Your task to perform on an android device: Go to Reddit Image 0: 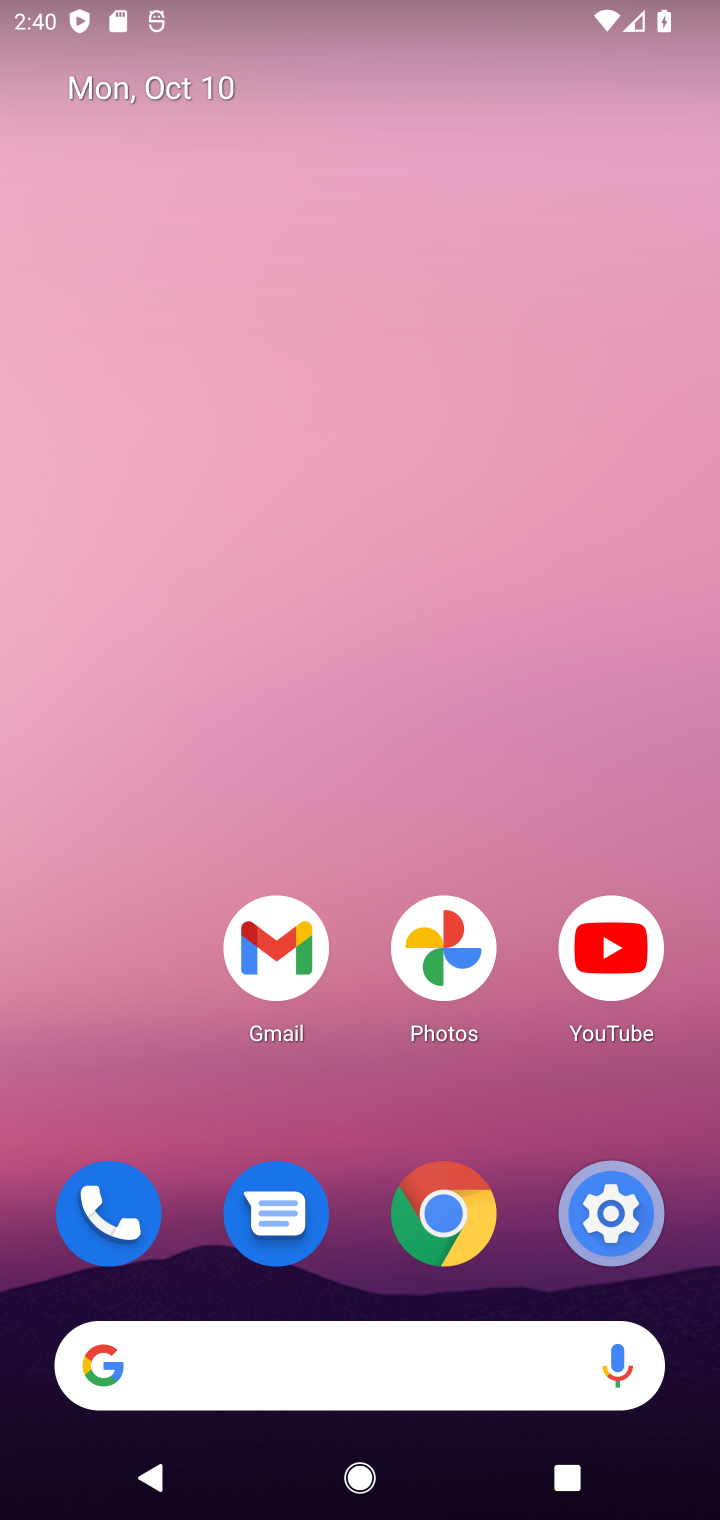
Step 0: drag from (355, 1128) to (333, 275)
Your task to perform on an android device: Go to Reddit Image 1: 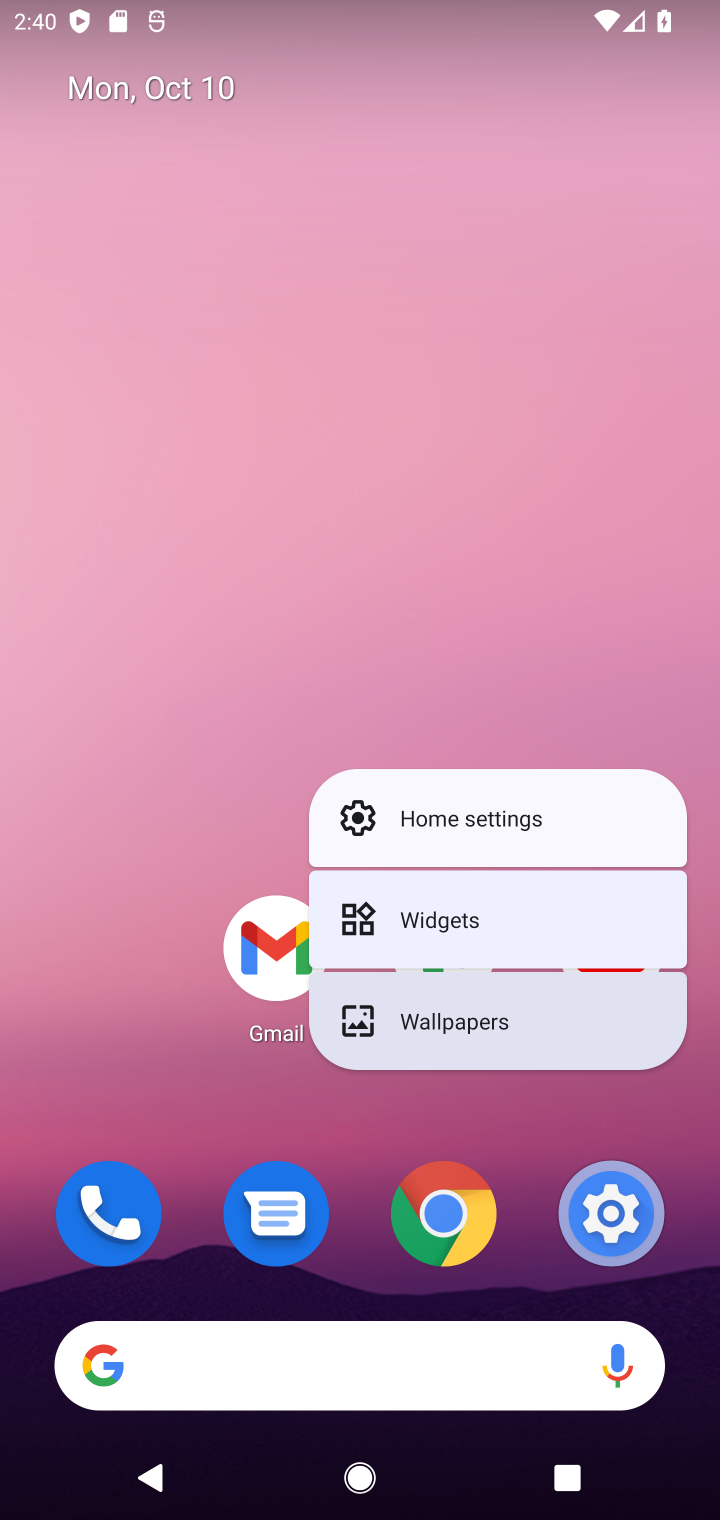
Step 1: drag from (168, 1092) to (299, 224)
Your task to perform on an android device: Go to Reddit Image 2: 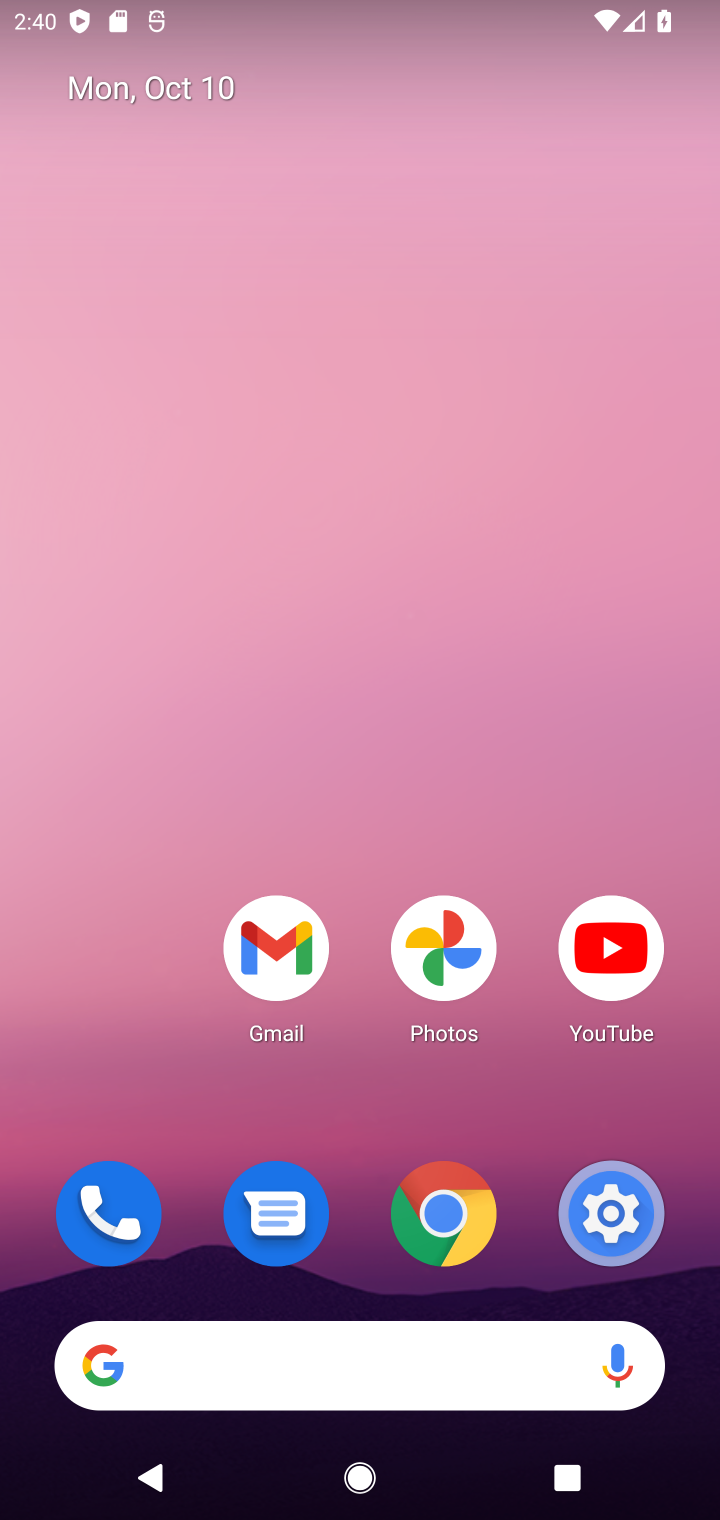
Step 2: click (358, 1149)
Your task to perform on an android device: Go to Reddit Image 3: 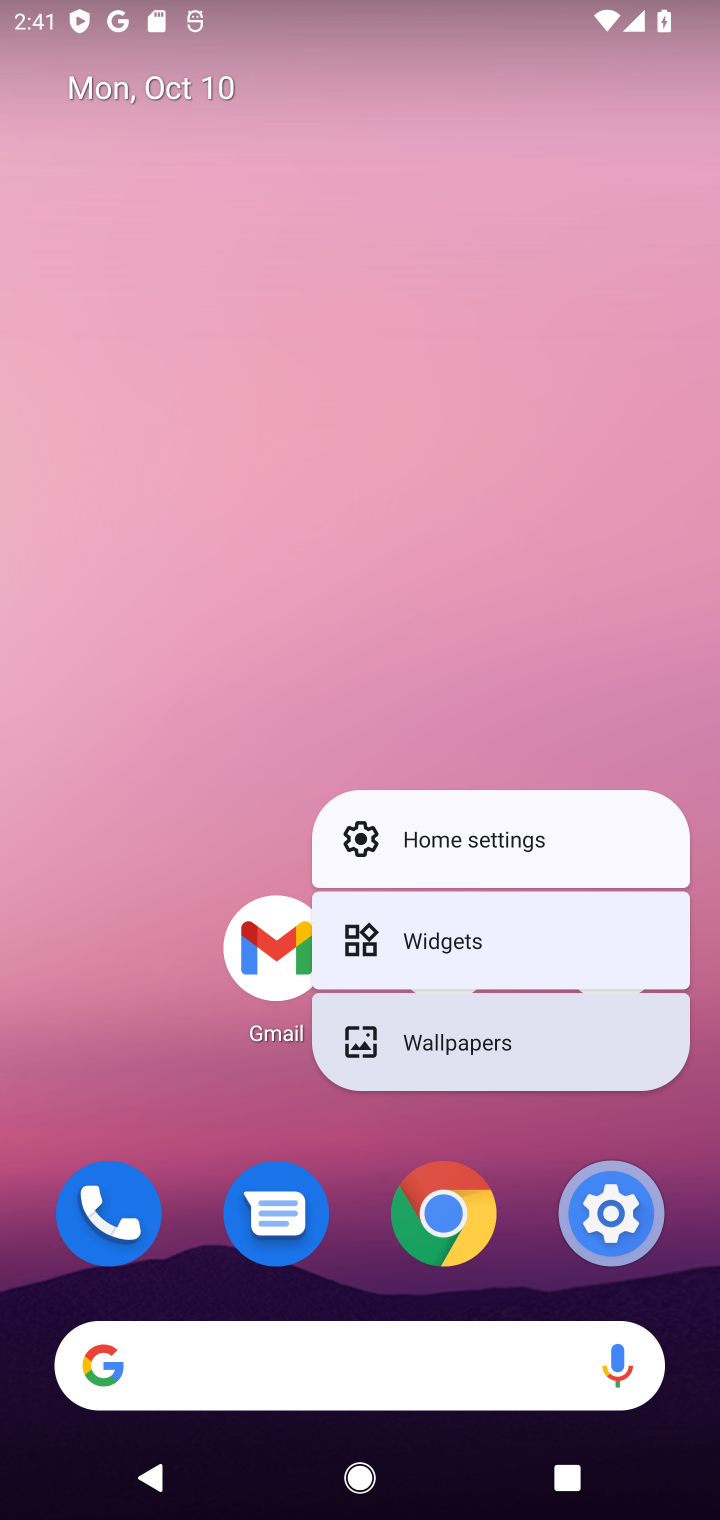
Step 3: drag from (208, 1063) to (392, 121)
Your task to perform on an android device: Go to Reddit Image 4: 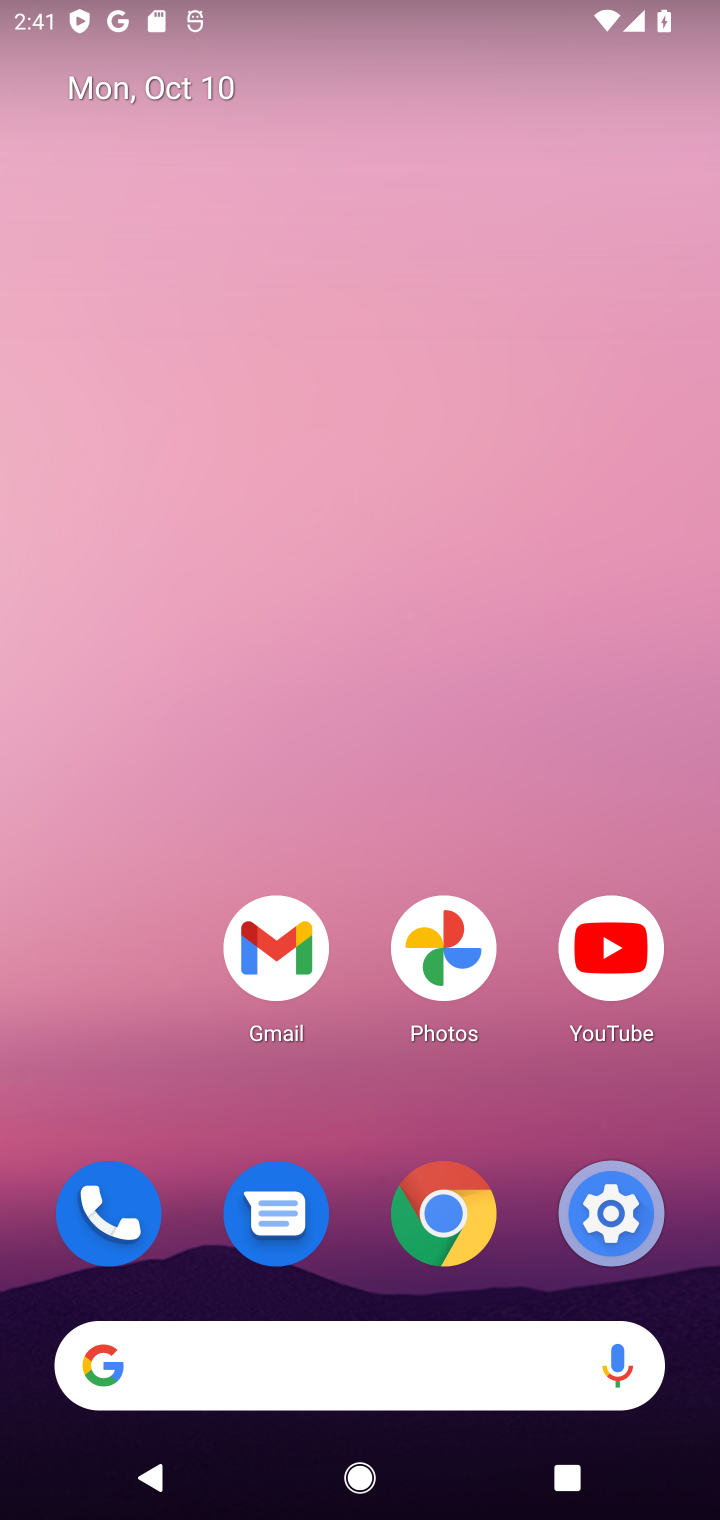
Step 4: drag from (540, 912) to (595, 70)
Your task to perform on an android device: Go to Reddit Image 5: 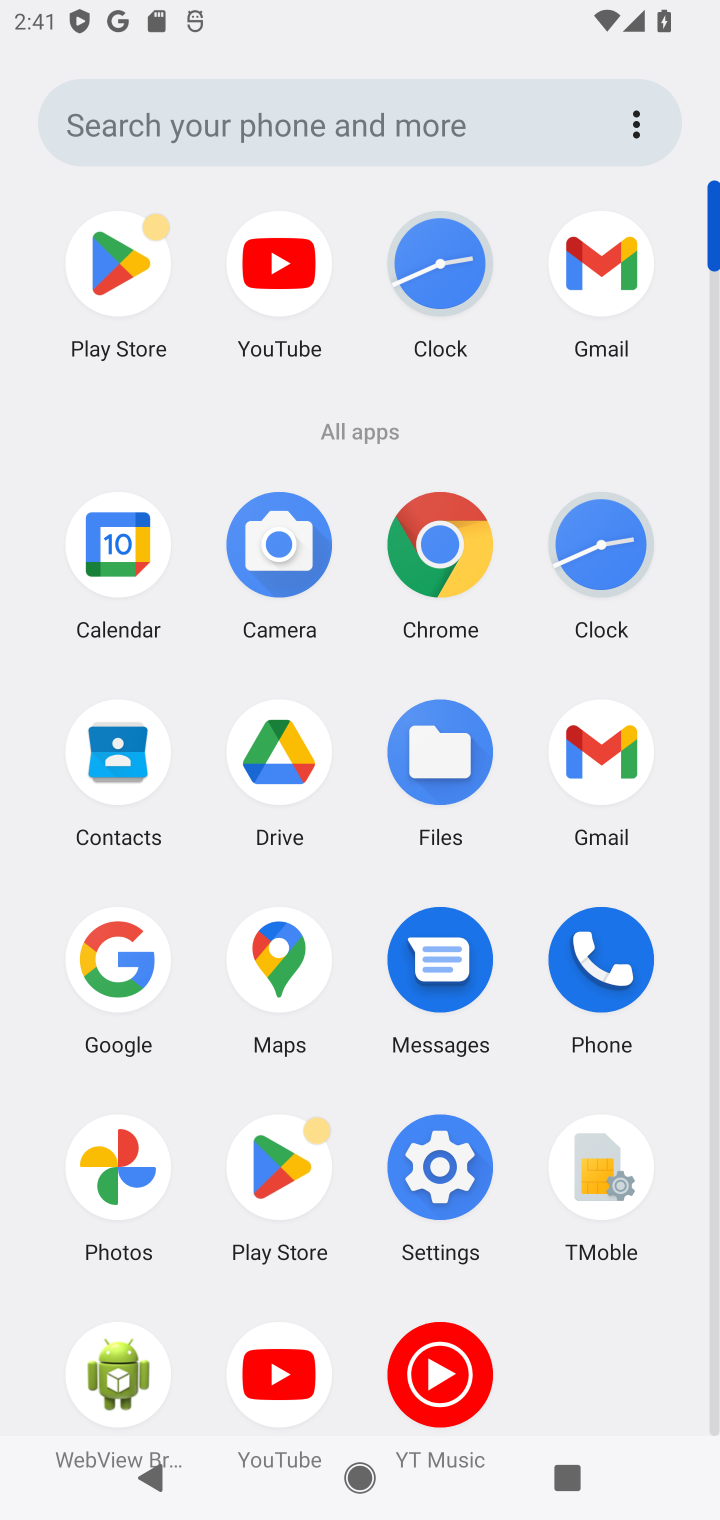
Step 5: click (451, 534)
Your task to perform on an android device: Go to Reddit Image 6: 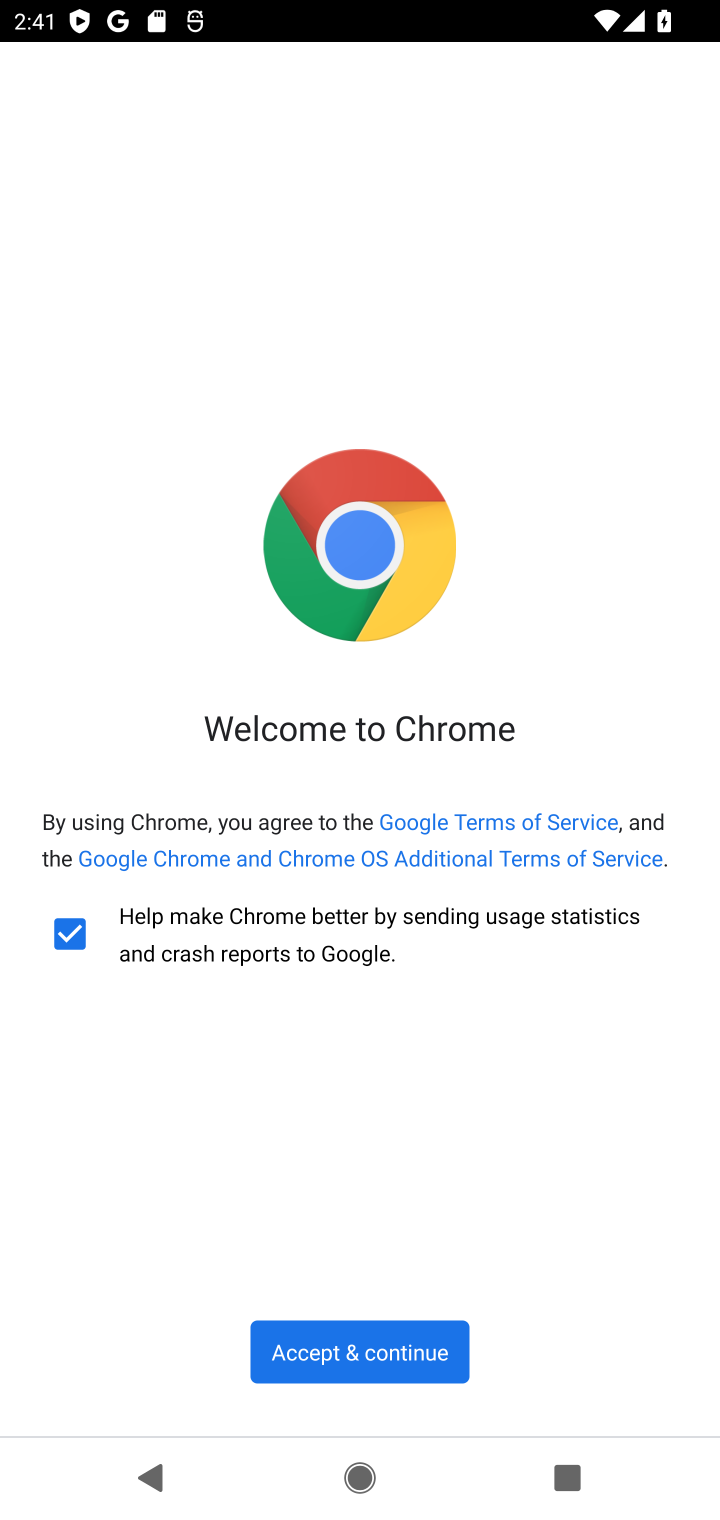
Step 6: click (442, 1346)
Your task to perform on an android device: Go to Reddit Image 7: 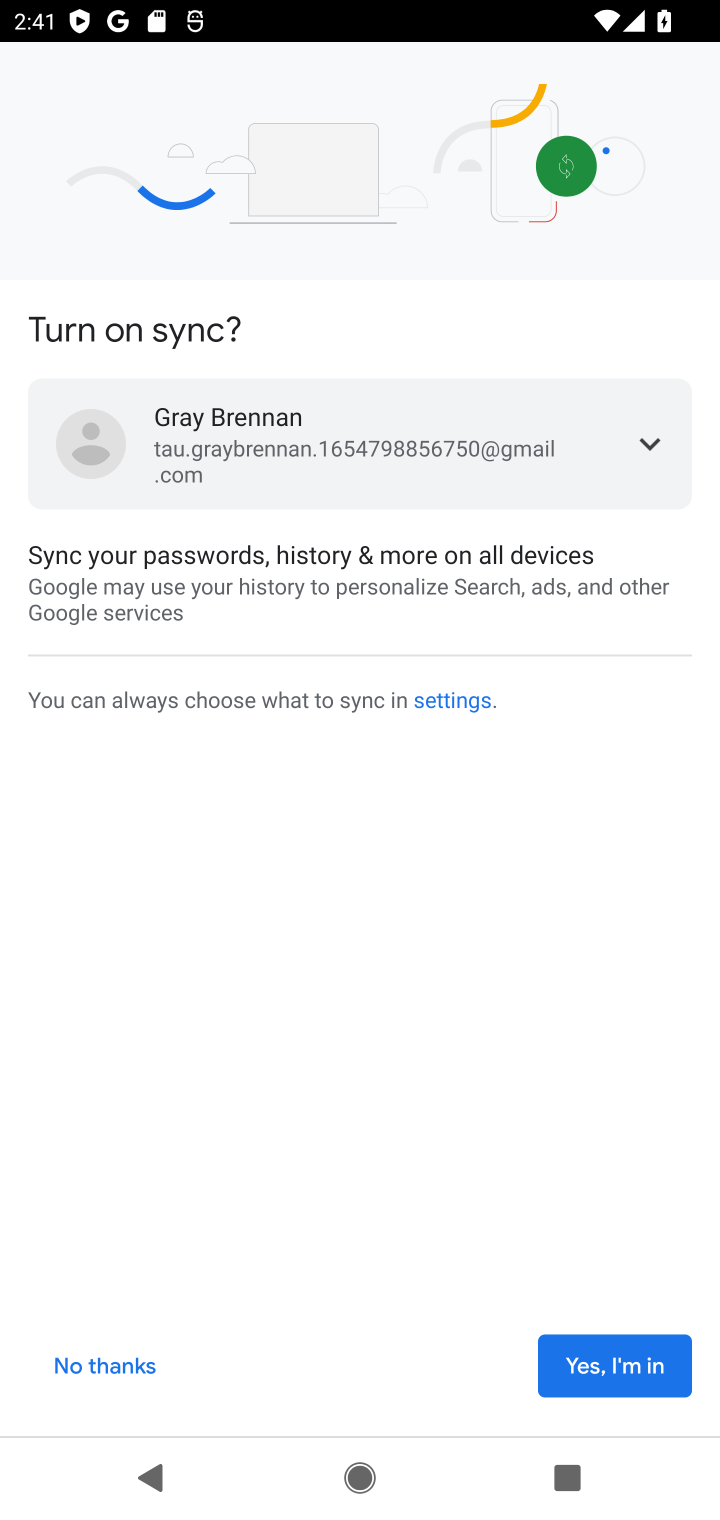
Step 7: click (570, 1360)
Your task to perform on an android device: Go to Reddit Image 8: 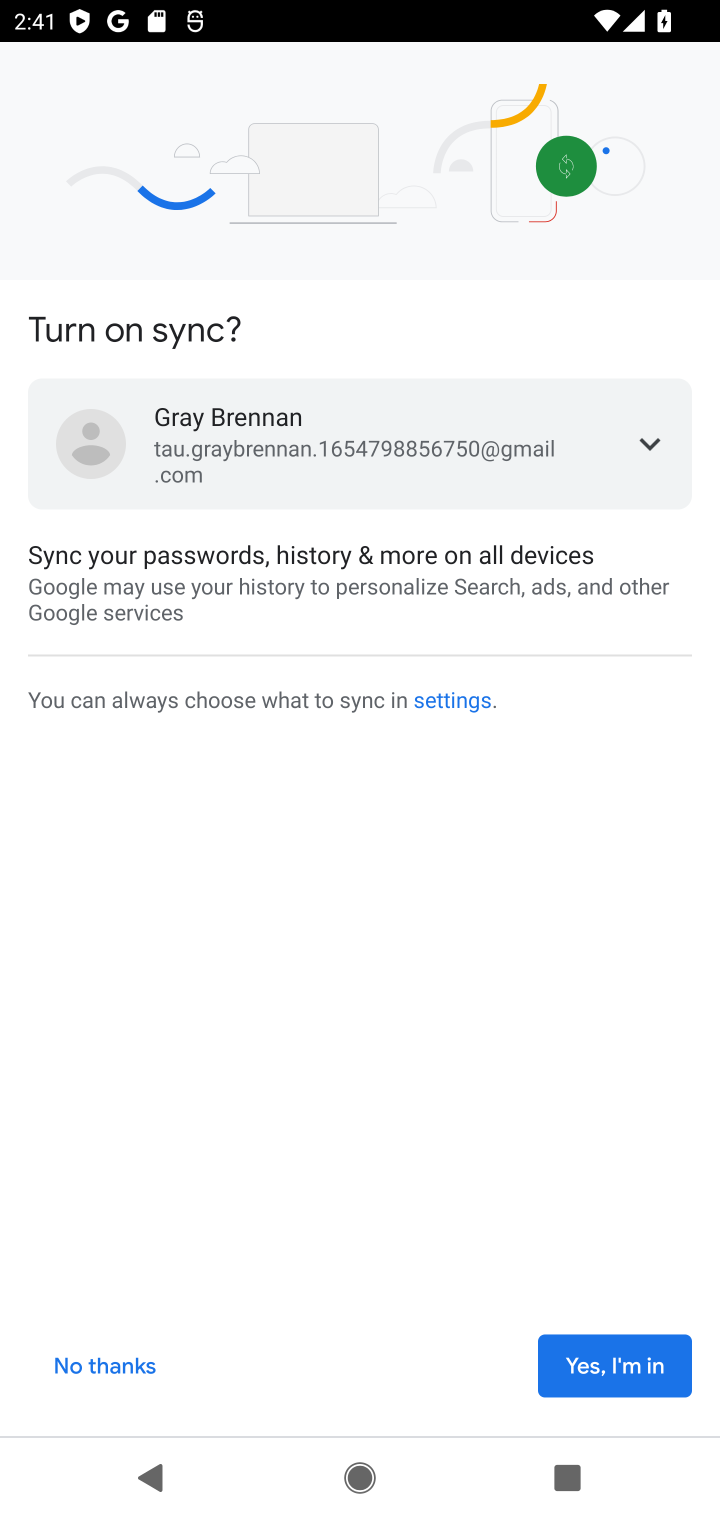
Step 8: click (570, 1360)
Your task to perform on an android device: Go to Reddit Image 9: 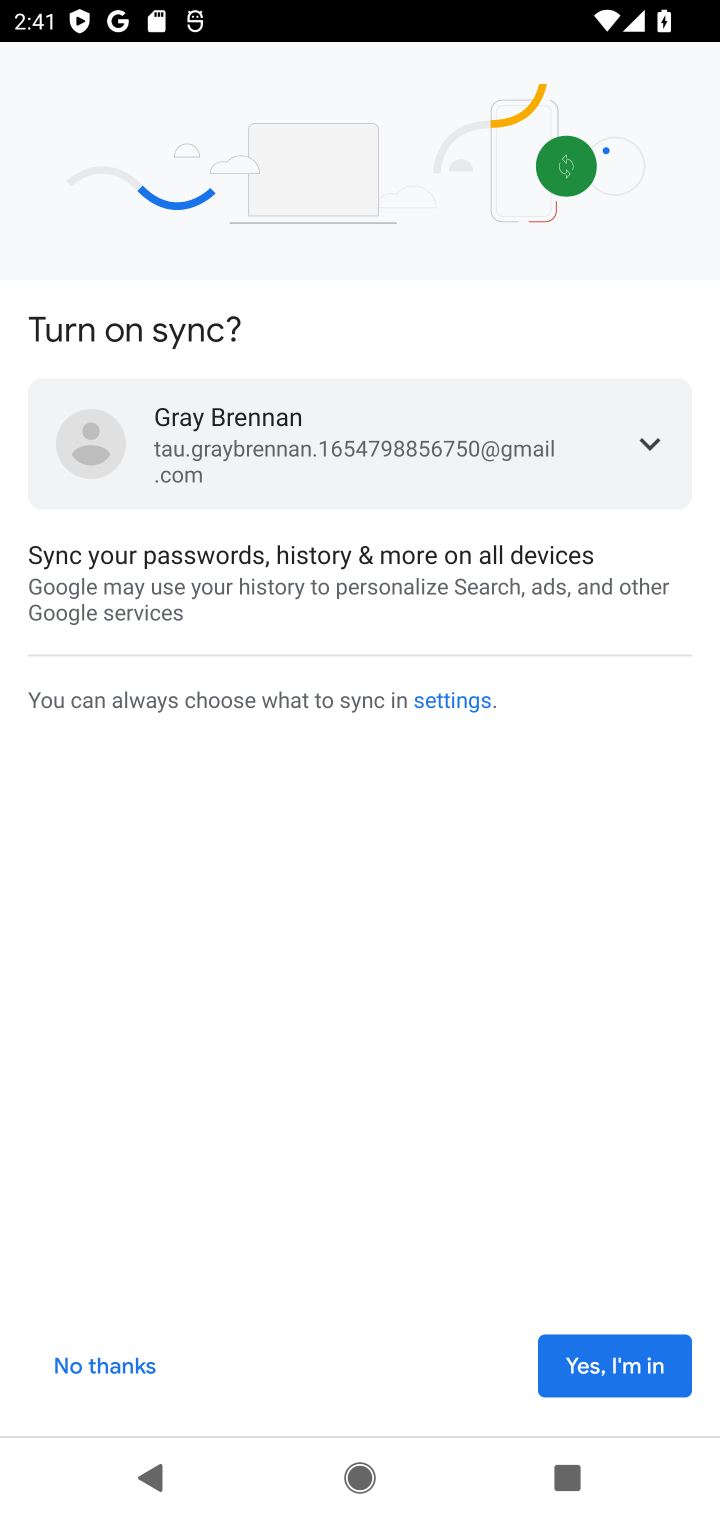
Step 9: click (570, 1360)
Your task to perform on an android device: Go to Reddit Image 10: 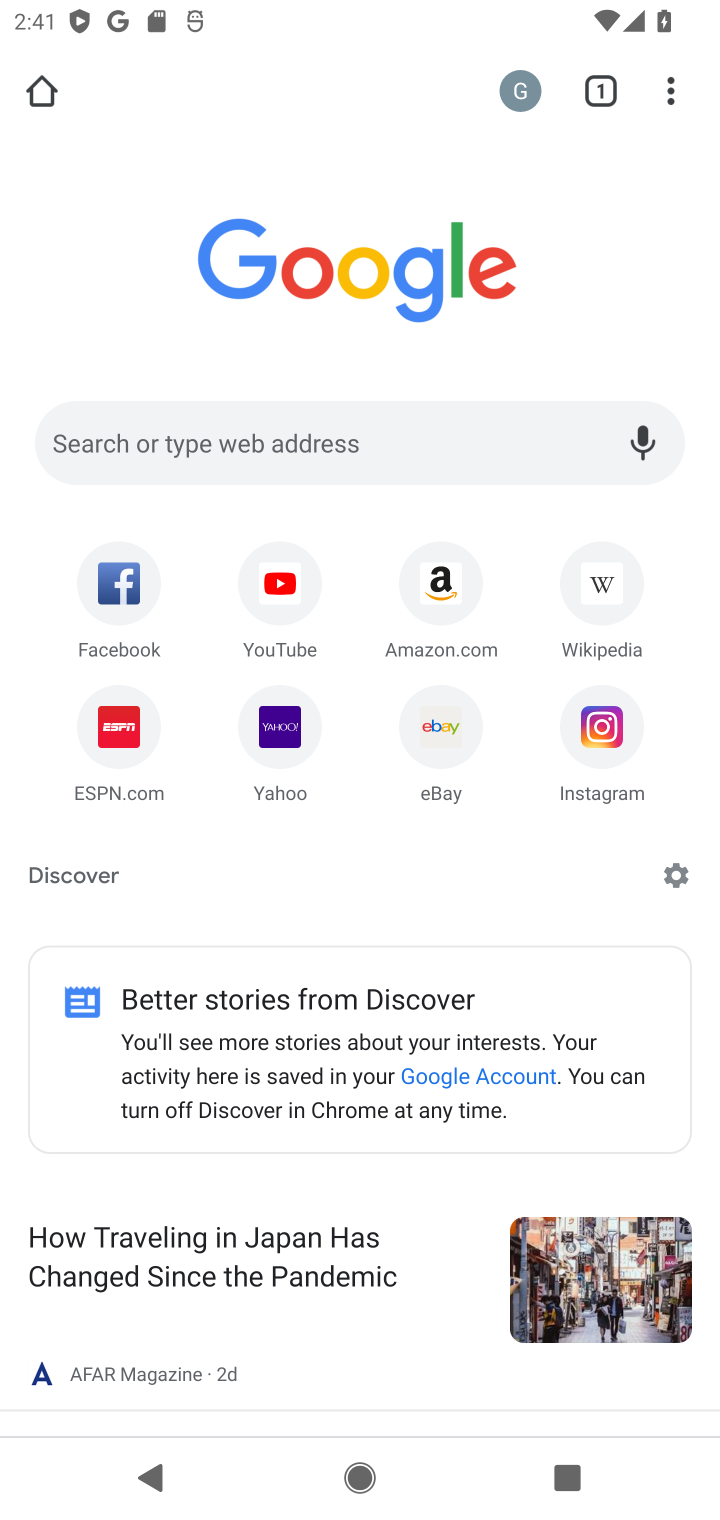
Step 10: click (332, 445)
Your task to perform on an android device: Go to Reddit Image 11: 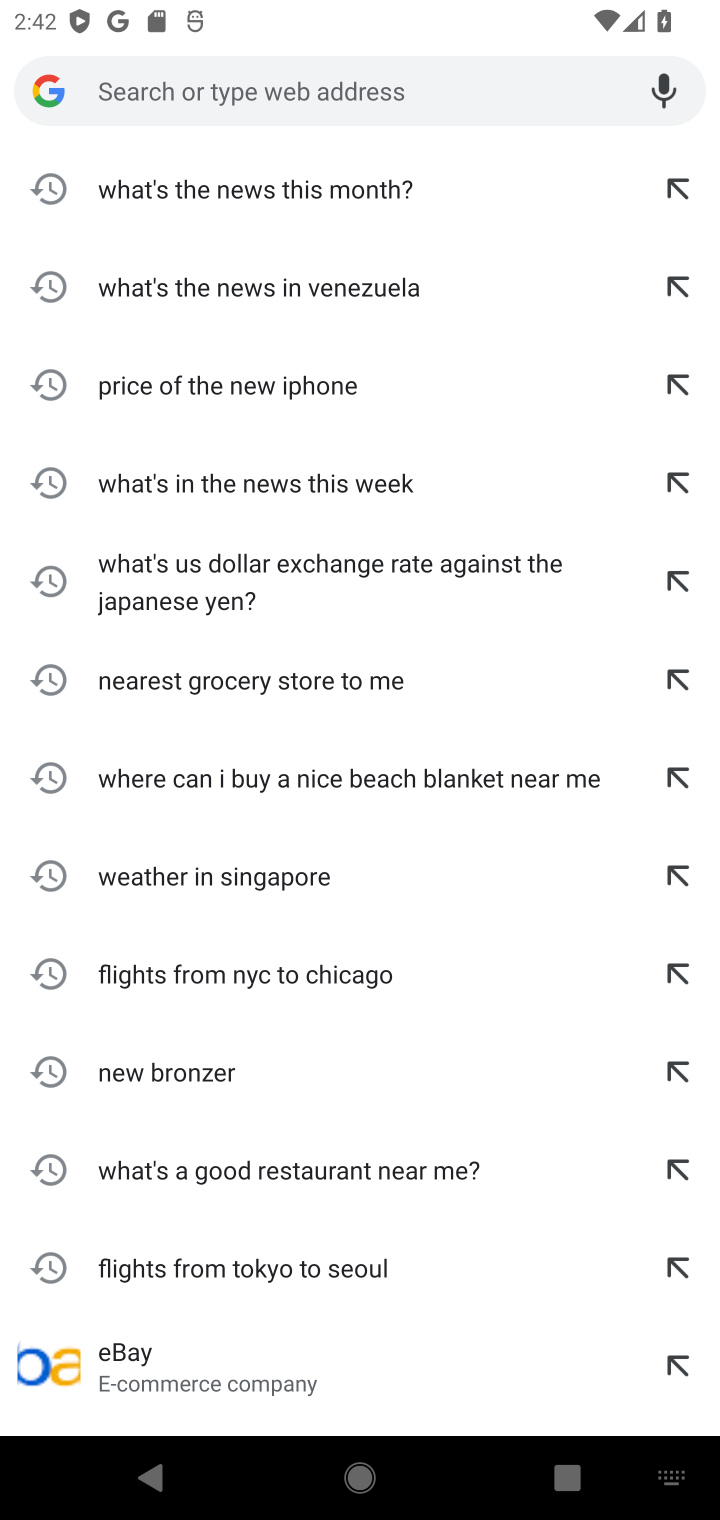
Step 11: type "Reddit "
Your task to perform on an android device: Go to Reddit Image 12: 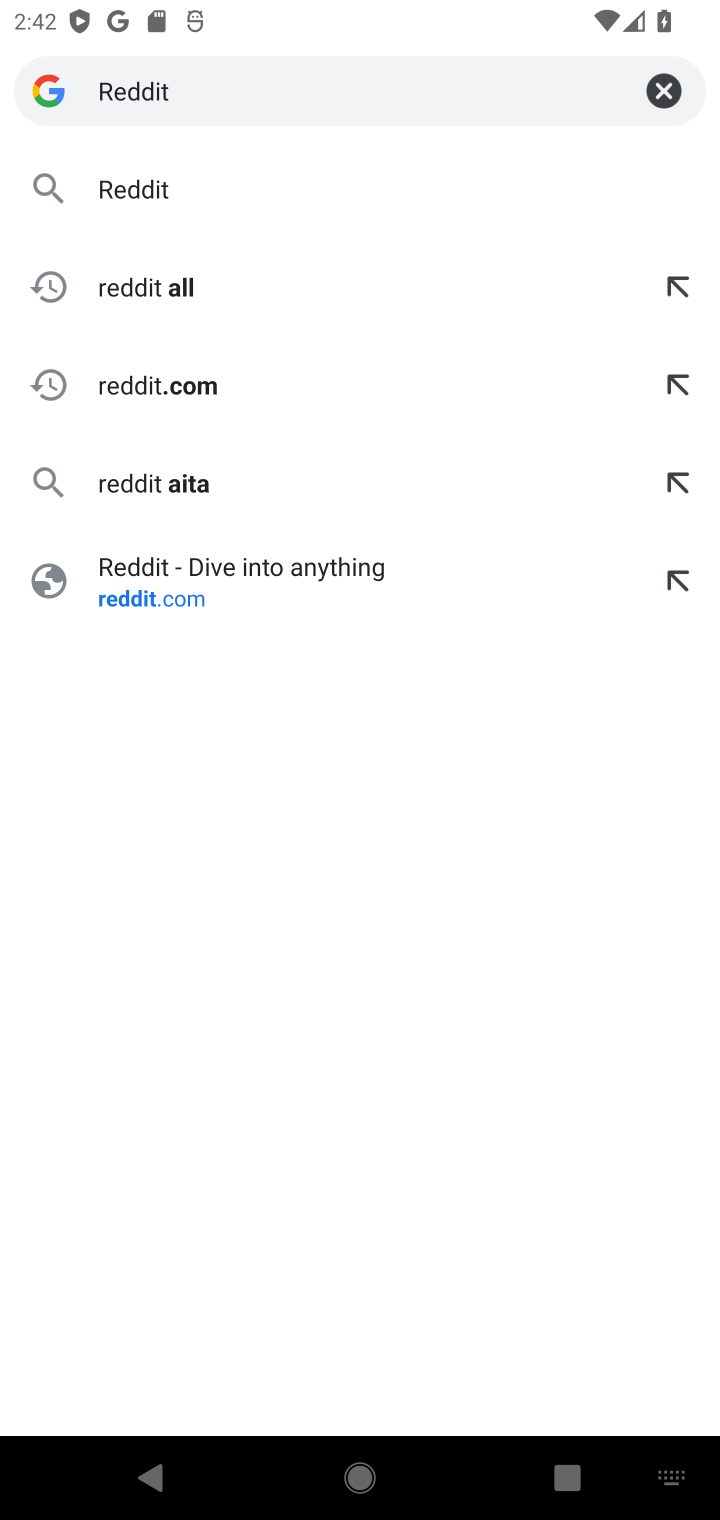
Step 12: click (118, 193)
Your task to perform on an android device: Go to Reddit Image 13: 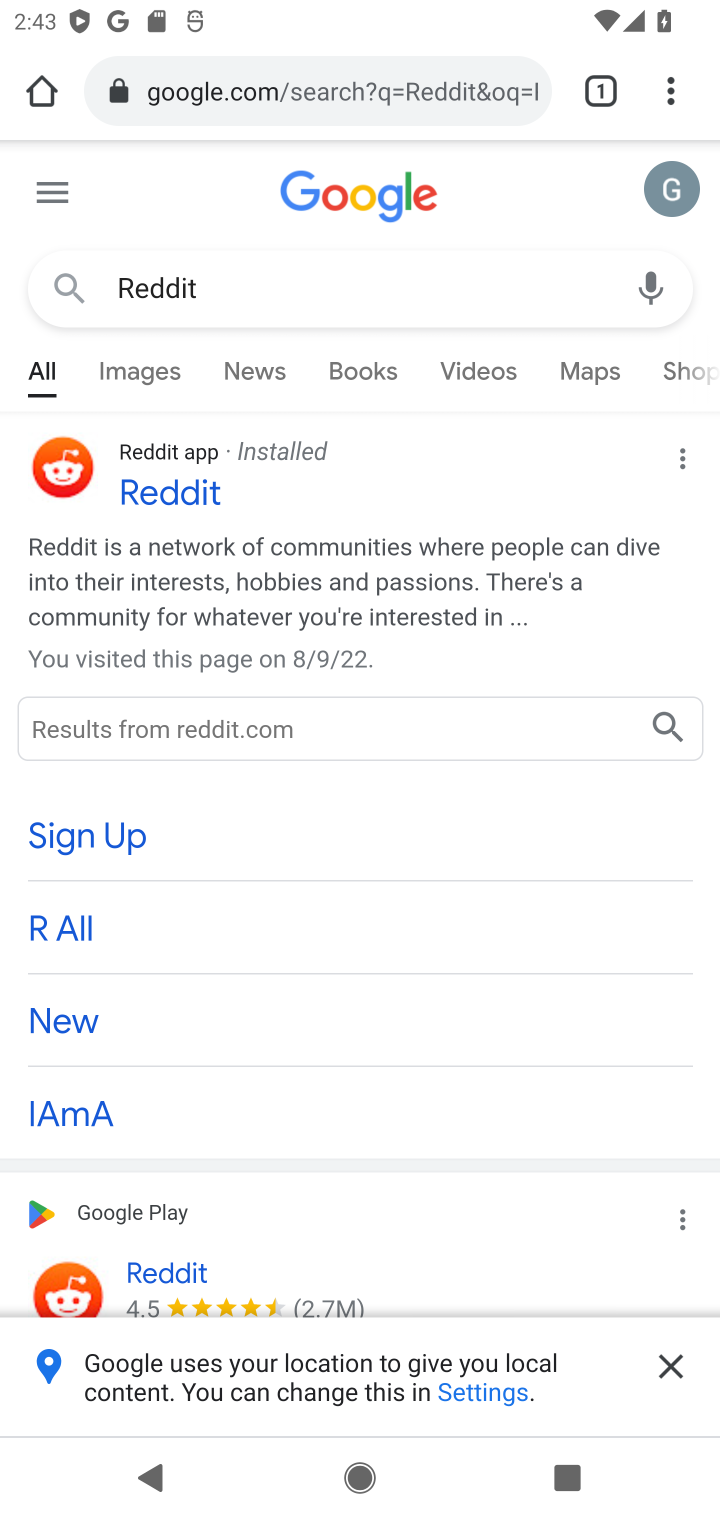
Step 13: click (175, 488)
Your task to perform on an android device: Go to Reddit Image 14: 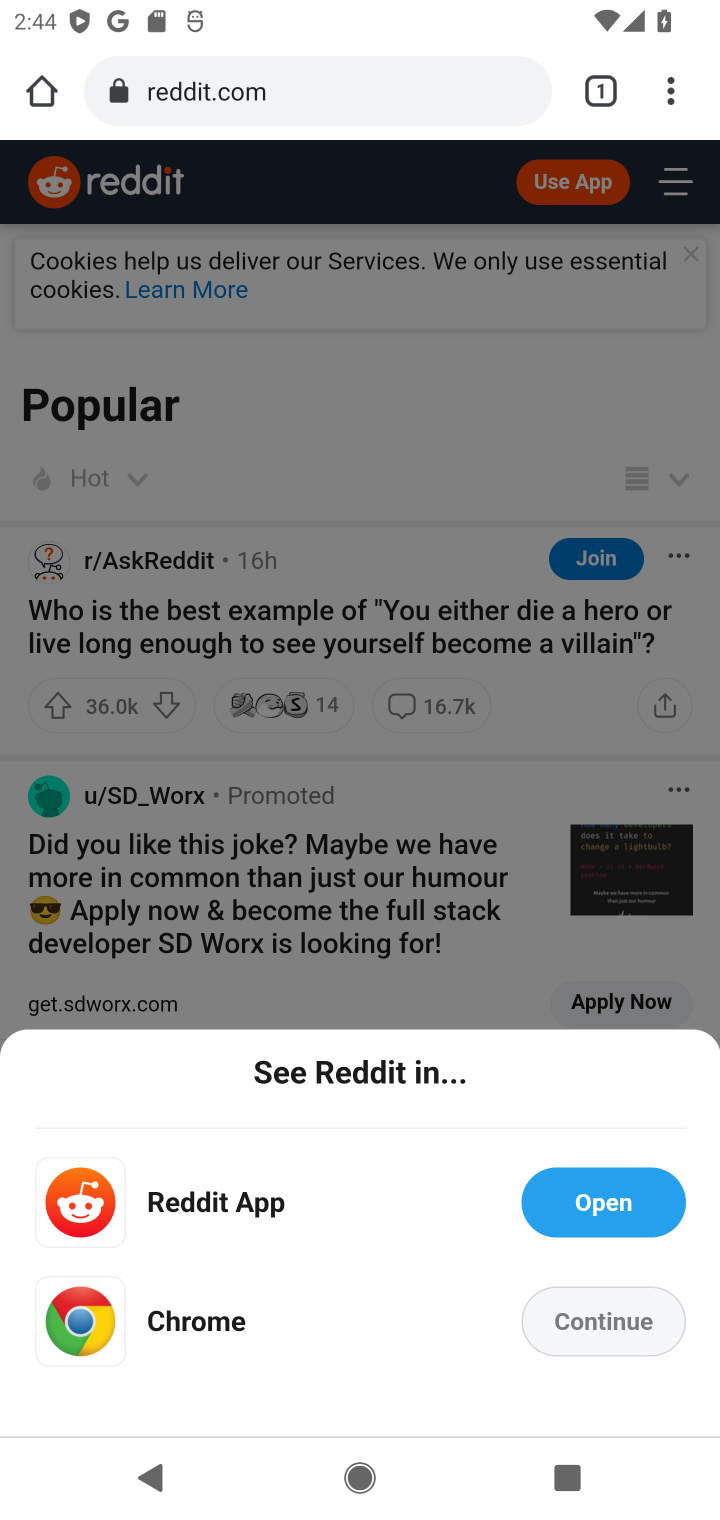
Step 14: click (582, 1194)
Your task to perform on an android device: Go to Reddit Image 15: 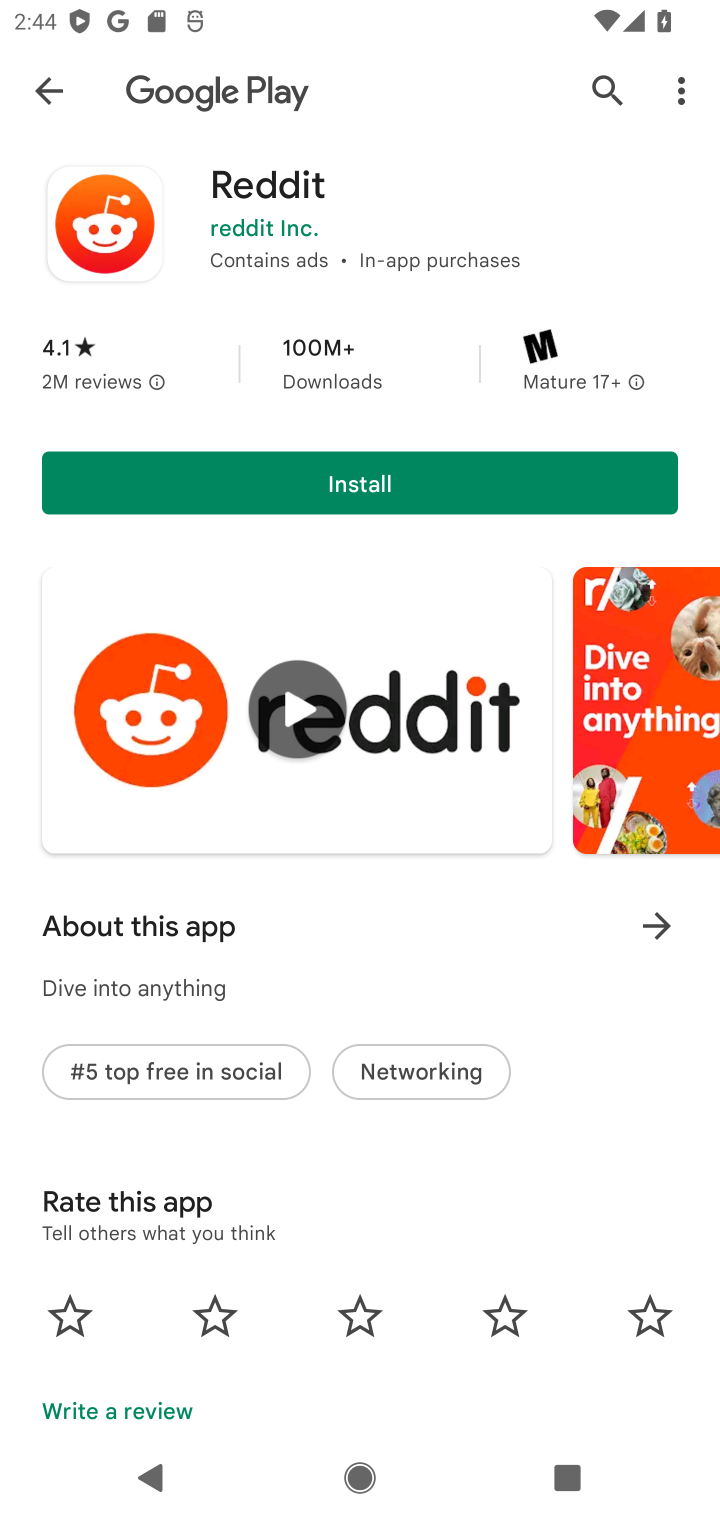
Step 15: task complete